Your task to perform on an android device: change your default location settings in chrome Image 0: 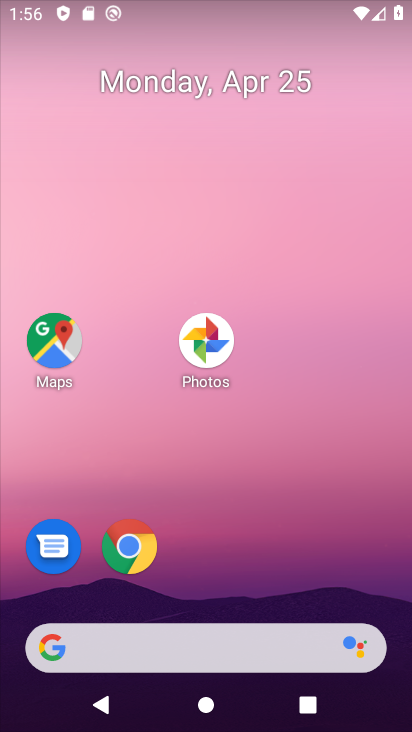
Step 0: drag from (302, 404) to (319, 276)
Your task to perform on an android device: change your default location settings in chrome Image 1: 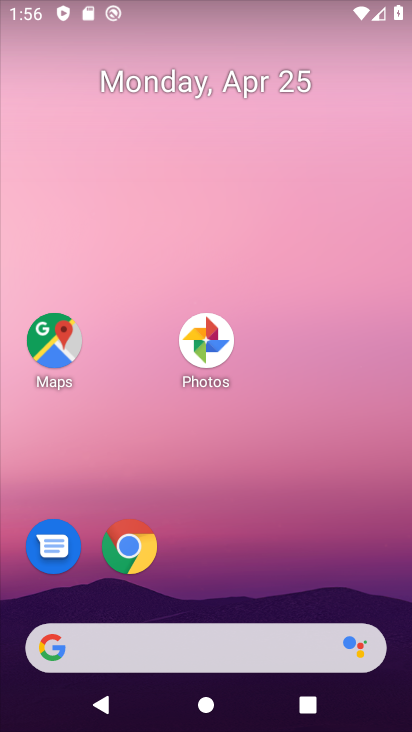
Step 1: drag from (313, 519) to (302, 226)
Your task to perform on an android device: change your default location settings in chrome Image 2: 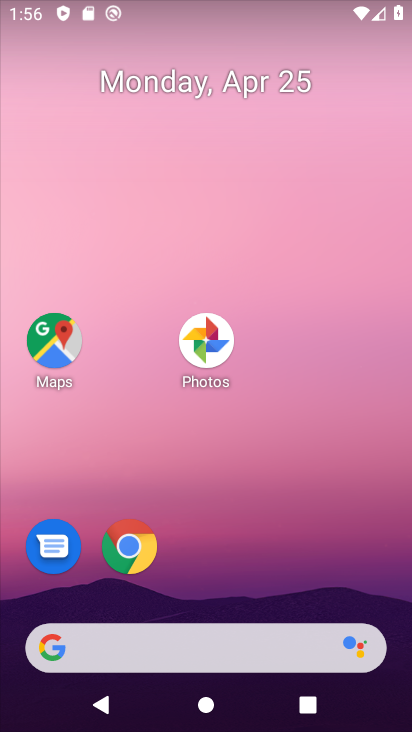
Step 2: drag from (254, 561) to (289, 175)
Your task to perform on an android device: change your default location settings in chrome Image 3: 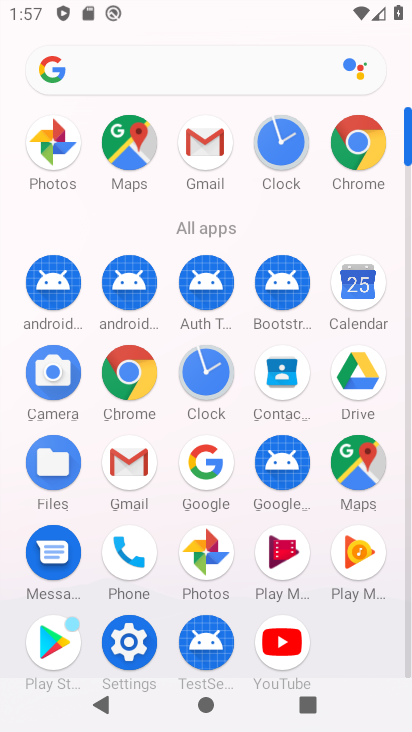
Step 3: click (138, 372)
Your task to perform on an android device: change your default location settings in chrome Image 4: 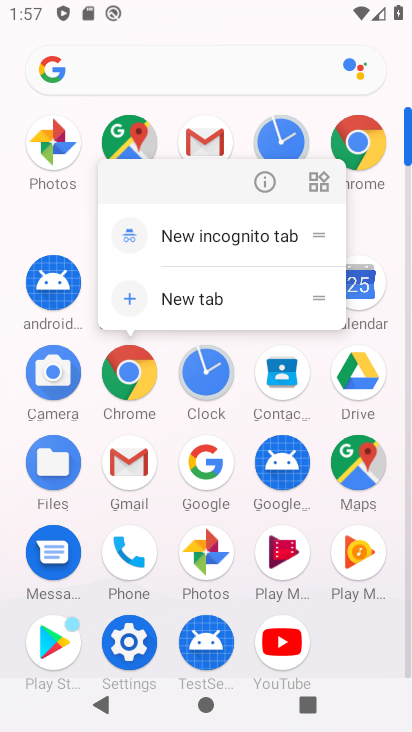
Step 4: click (128, 368)
Your task to perform on an android device: change your default location settings in chrome Image 5: 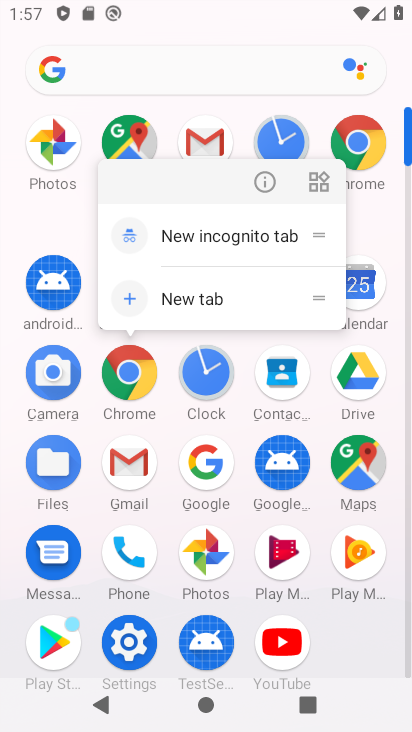
Step 5: click (128, 368)
Your task to perform on an android device: change your default location settings in chrome Image 6: 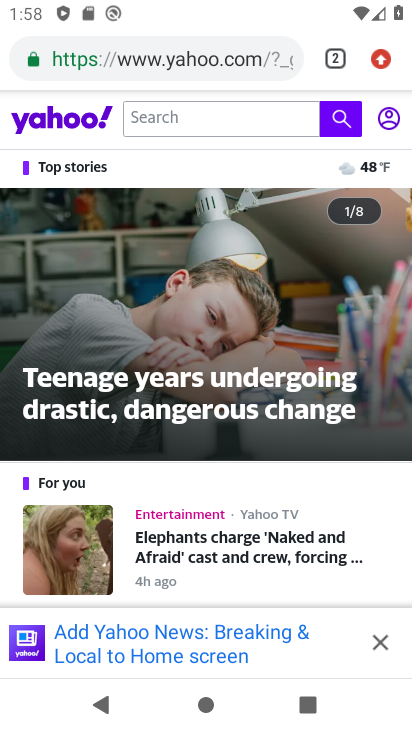
Step 6: click (375, 61)
Your task to perform on an android device: change your default location settings in chrome Image 7: 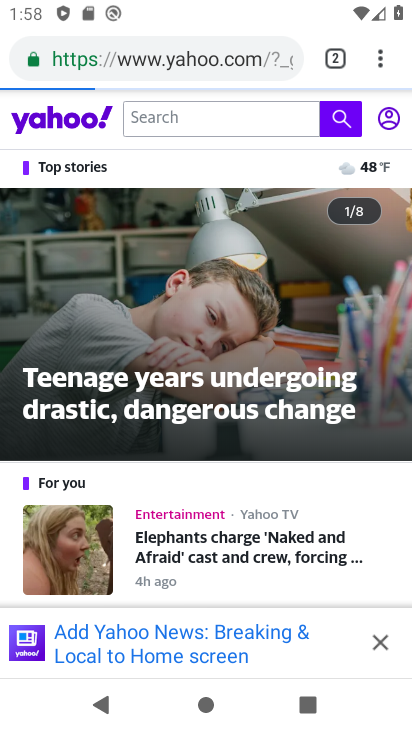
Step 7: click (383, 63)
Your task to perform on an android device: change your default location settings in chrome Image 8: 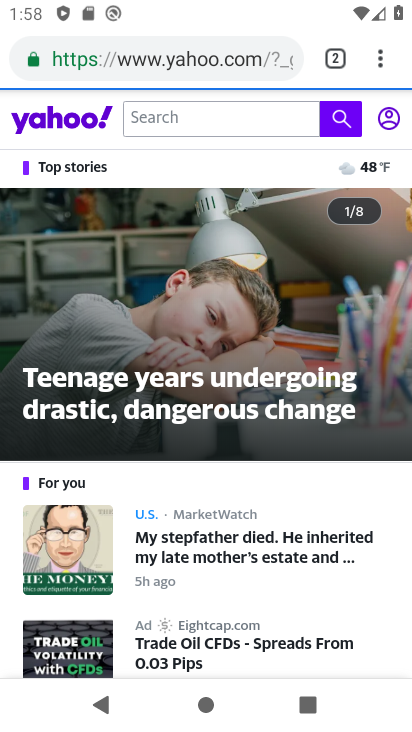
Step 8: click (366, 58)
Your task to perform on an android device: change your default location settings in chrome Image 9: 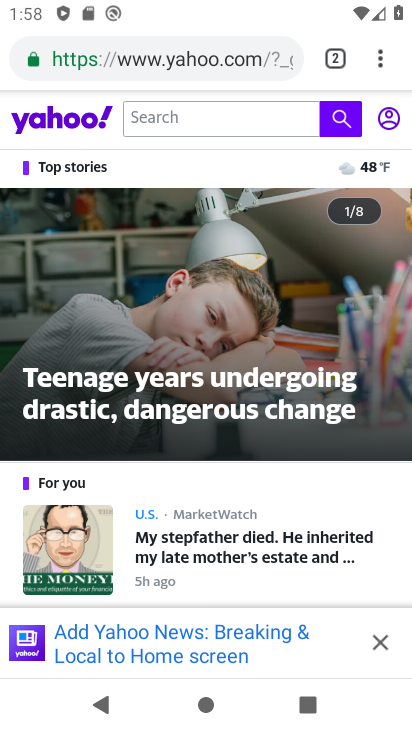
Step 9: click (367, 53)
Your task to perform on an android device: change your default location settings in chrome Image 10: 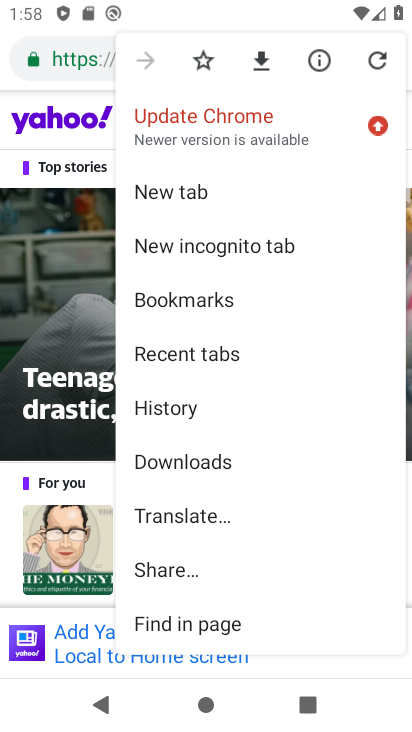
Step 10: drag from (208, 587) to (289, 225)
Your task to perform on an android device: change your default location settings in chrome Image 11: 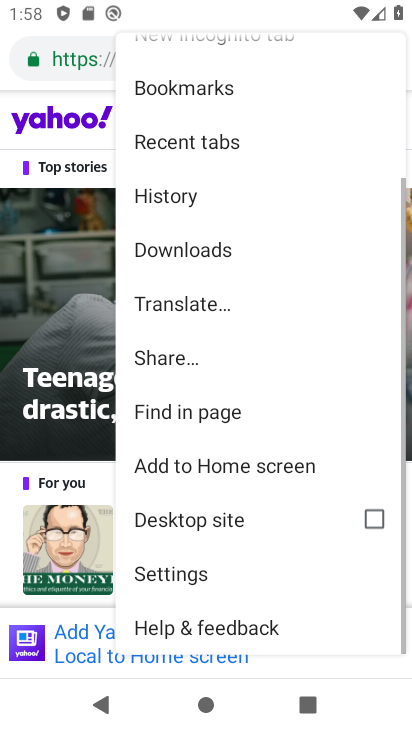
Step 11: click (188, 579)
Your task to perform on an android device: change your default location settings in chrome Image 12: 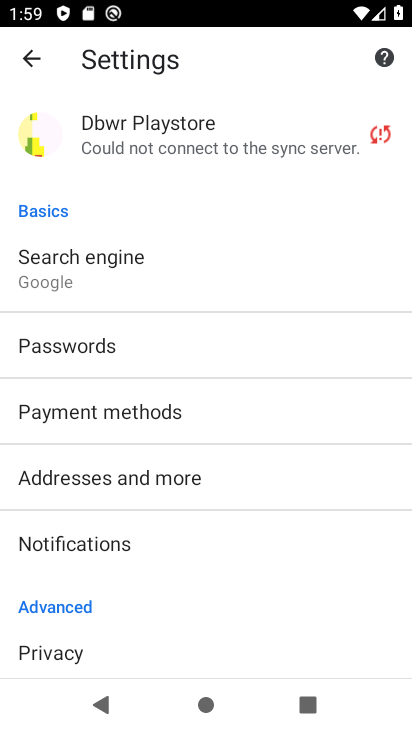
Step 12: drag from (193, 545) to (252, 254)
Your task to perform on an android device: change your default location settings in chrome Image 13: 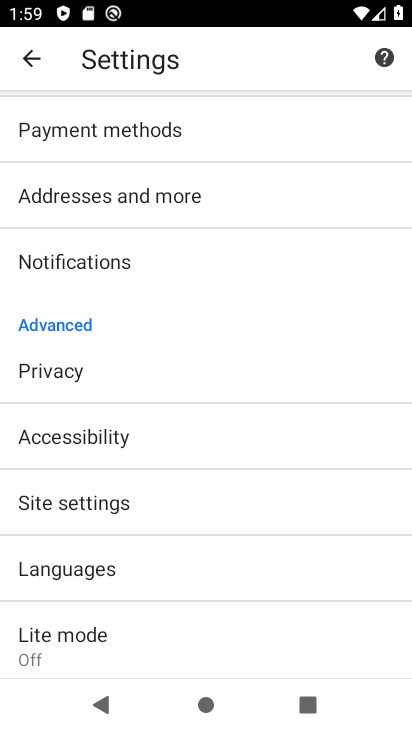
Step 13: click (138, 504)
Your task to perform on an android device: change your default location settings in chrome Image 14: 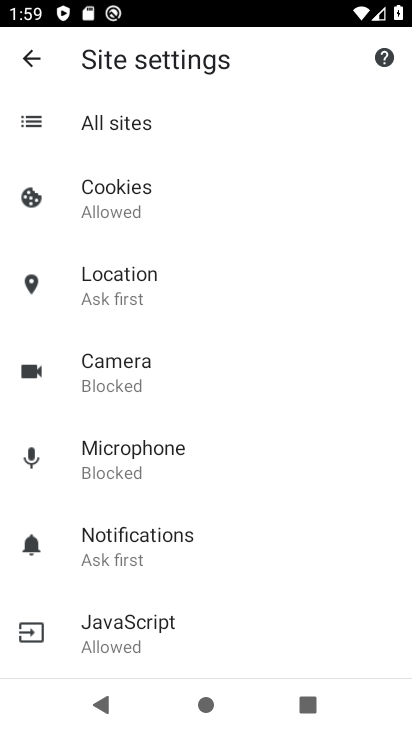
Step 14: click (148, 278)
Your task to perform on an android device: change your default location settings in chrome Image 15: 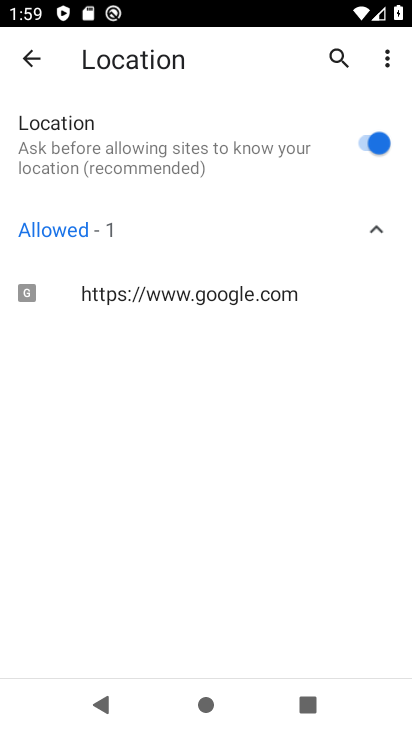
Step 15: click (373, 144)
Your task to perform on an android device: change your default location settings in chrome Image 16: 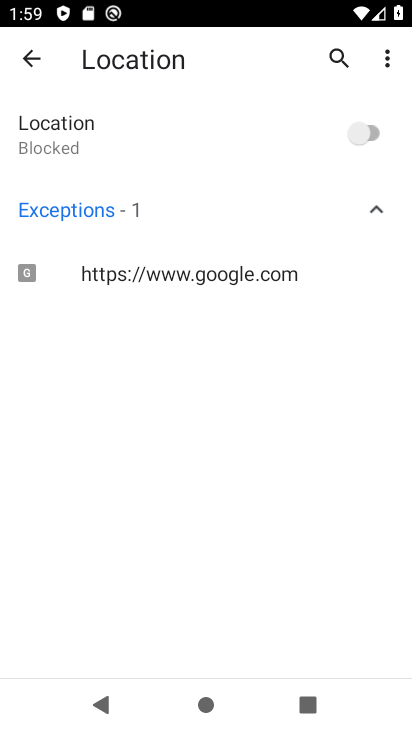
Step 16: task complete